Your task to perform on an android device: Go to wifi settings Image 0: 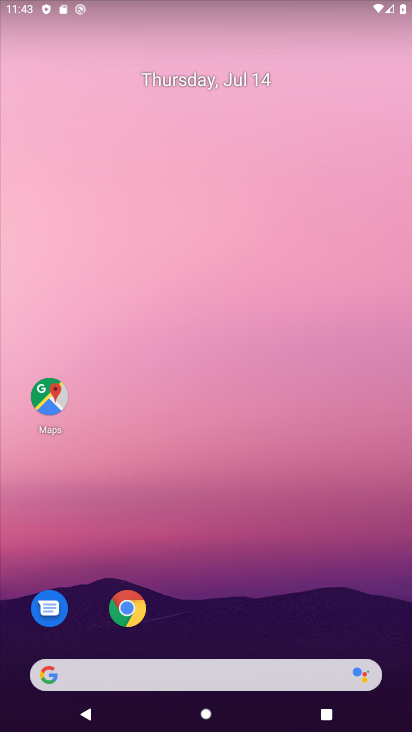
Step 0: drag from (250, 607) to (270, 140)
Your task to perform on an android device: Go to wifi settings Image 1: 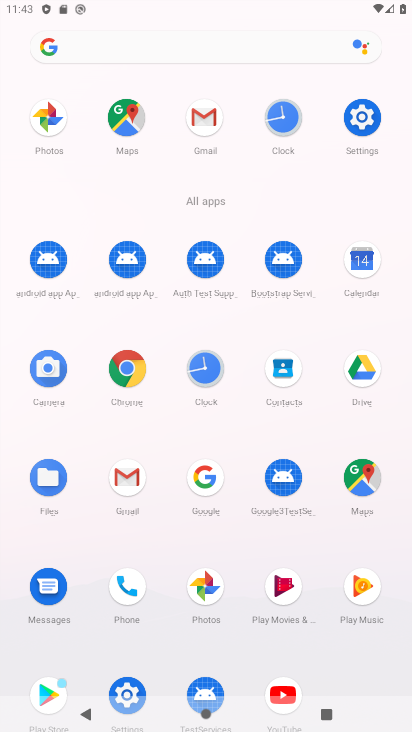
Step 1: click (362, 122)
Your task to perform on an android device: Go to wifi settings Image 2: 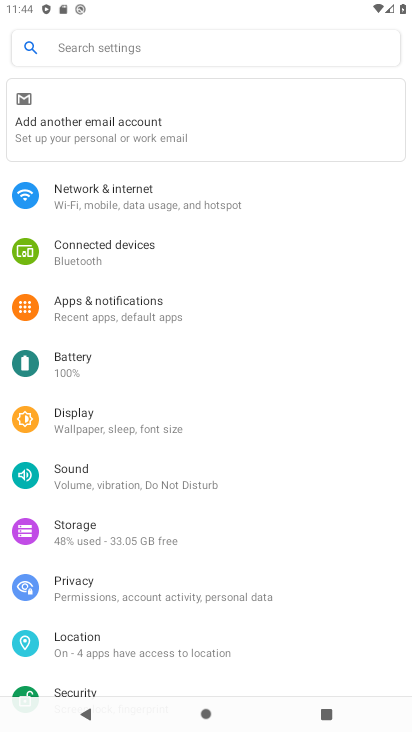
Step 2: click (175, 187)
Your task to perform on an android device: Go to wifi settings Image 3: 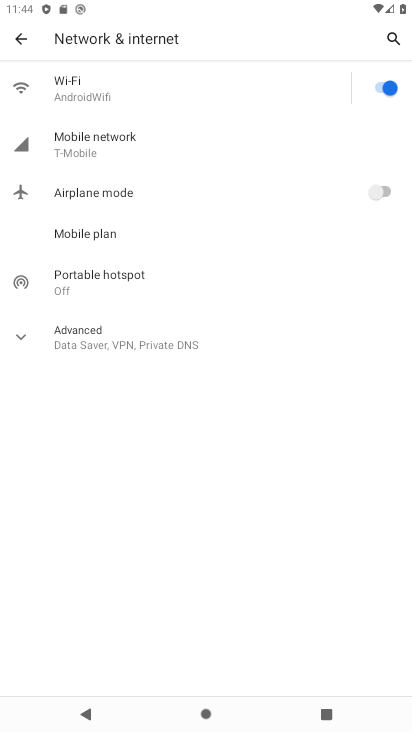
Step 3: click (250, 84)
Your task to perform on an android device: Go to wifi settings Image 4: 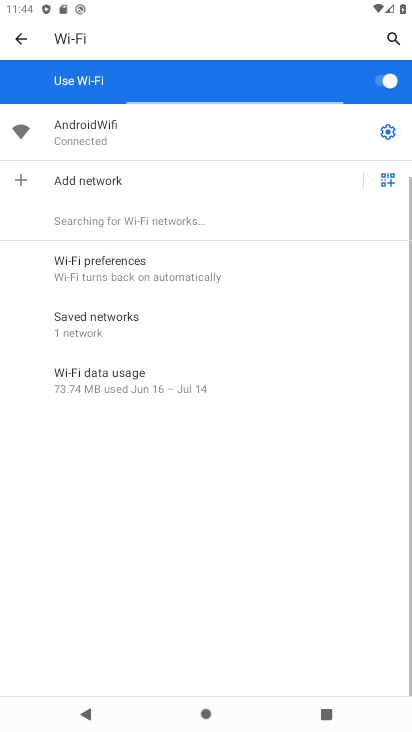
Step 4: click (150, 115)
Your task to perform on an android device: Go to wifi settings Image 5: 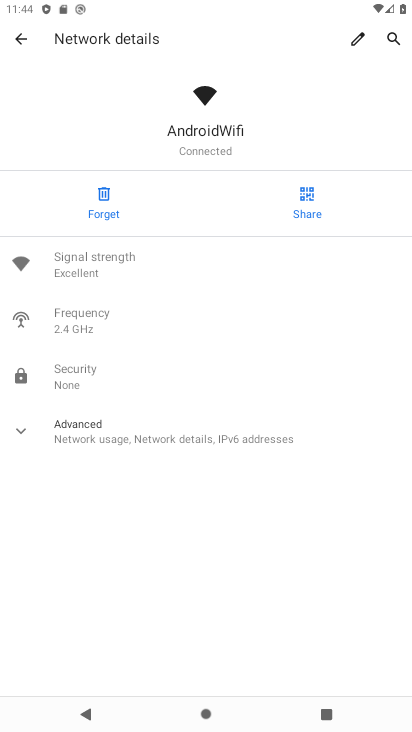
Step 5: task complete